Your task to perform on an android device: turn on sleep mode Image 0: 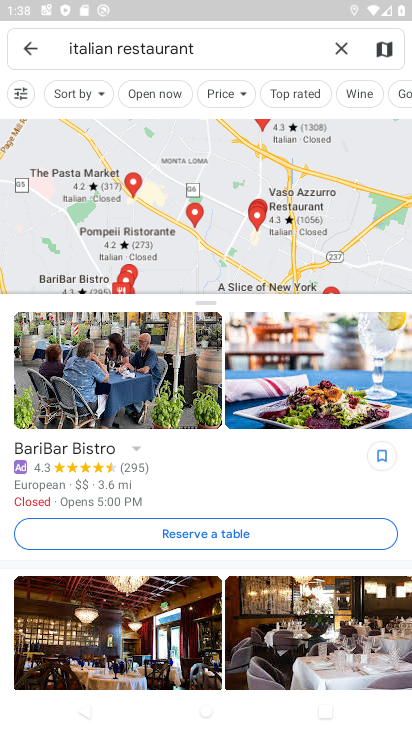
Step 0: press home button
Your task to perform on an android device: turn on sleep mode Image 1: 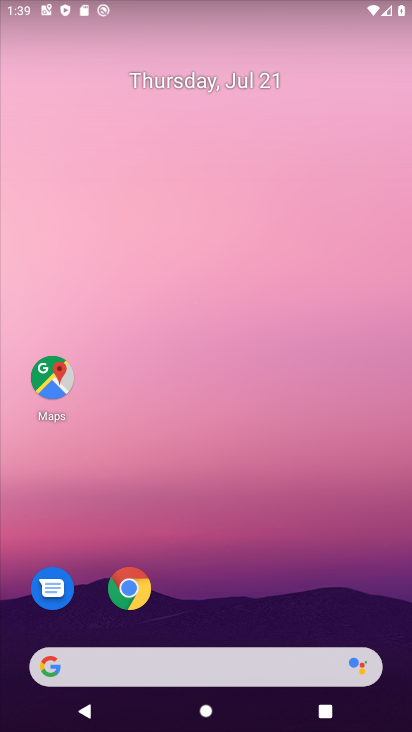
Step 1: drag from (229, 632) to (197, 8)
Your task to perform on an android device: turn on sleep mode Image 2: 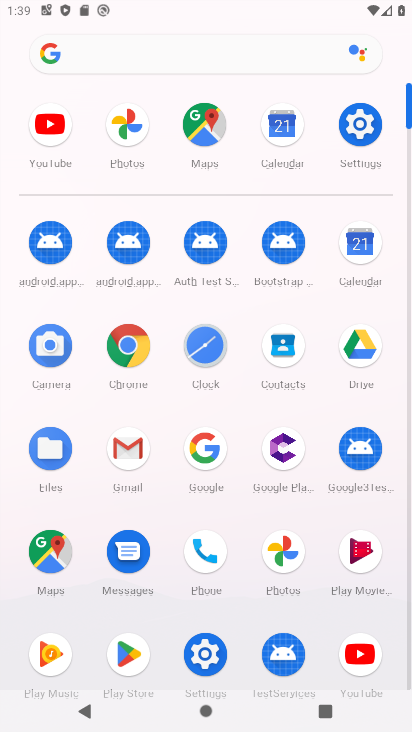
Step 2: click (363, 139)
Your task to perform on an android device: turn on sleep mode Image 3: 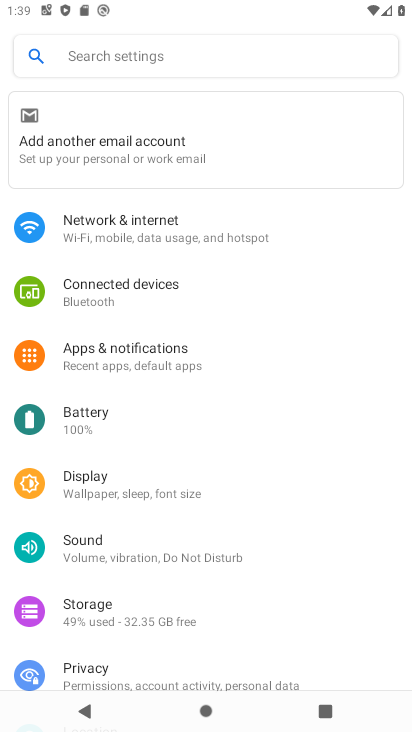
Step 3: click (118, 496)
Your task to perform on an android device: turn on sleep mode Image 4: 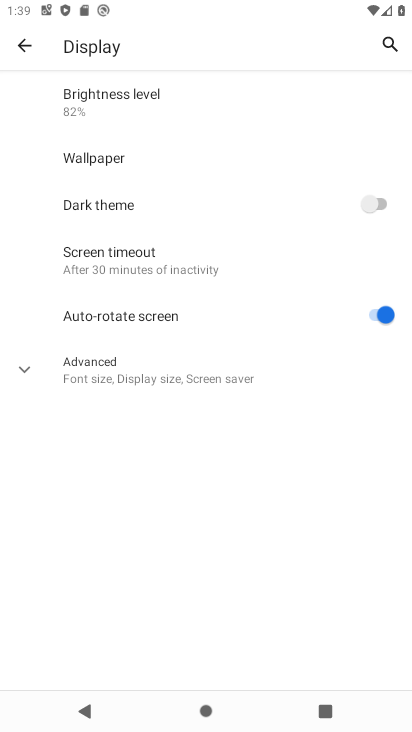
Step 4: task complete